Your task to perform on an android device: turn off notifications in google photos Image 0: 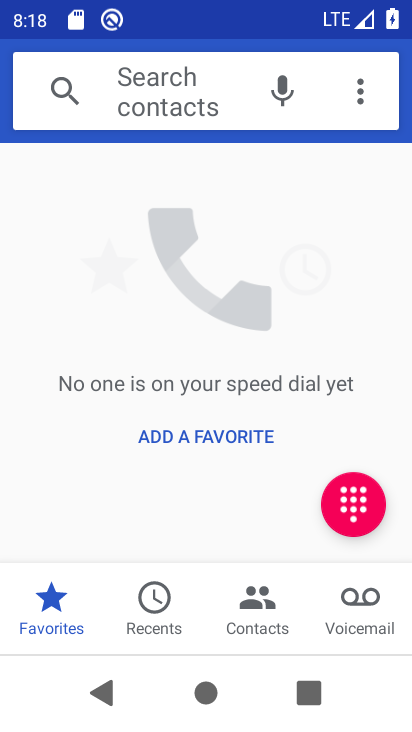
Step 0: press home button
Your task to perform on an android device: turn off notifications in google photos Image 1: 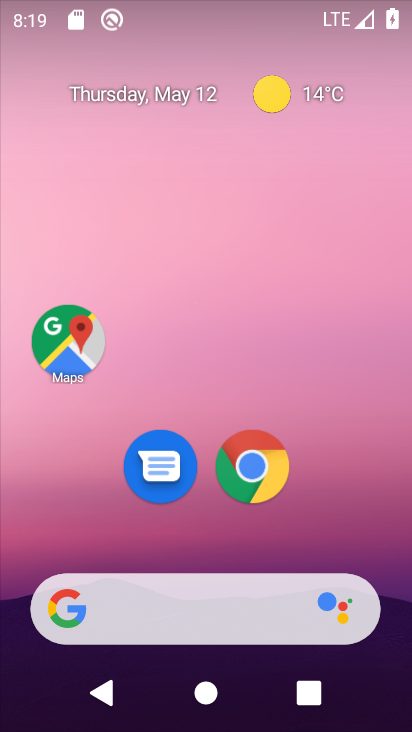
Step 1: drag from (207, 539) to (206, 94)
Your task to perform on an android device: turn off notifications in google photos Image 2: 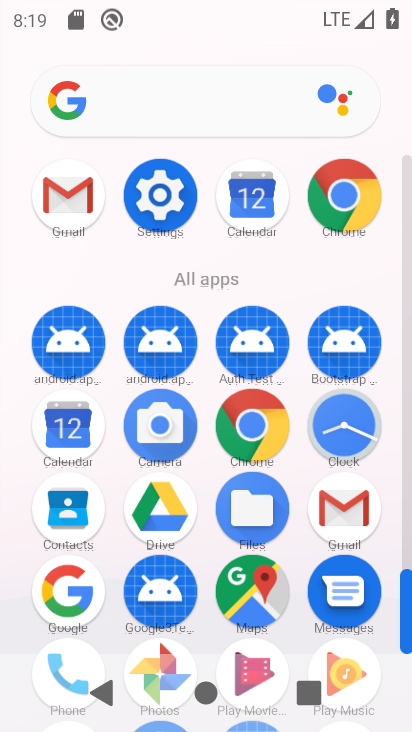
Step 2: drag from (203, 619) to (180, 219)
Your task to perform on an android device: turn off notifications in google photos Image 3: 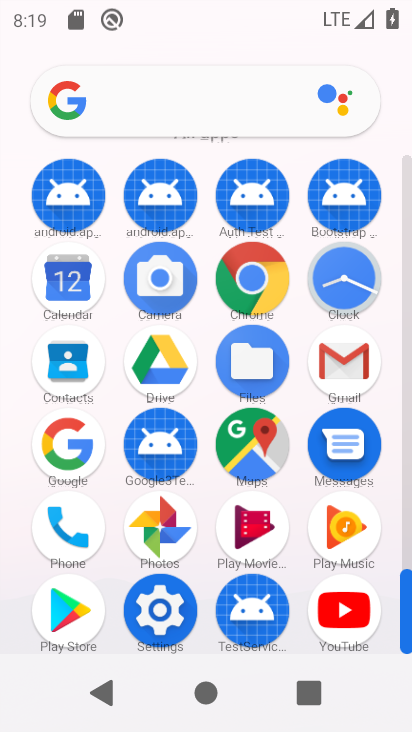
Step 3: click (158, 519)
Your task to perform on an android device: turn off notifications in google photos Image 4: 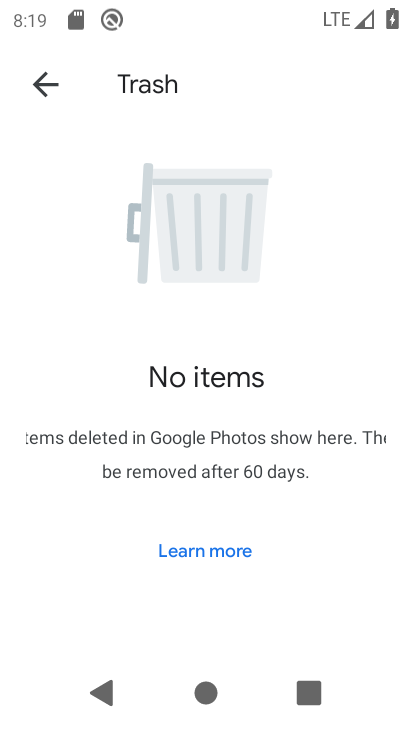
Step 4: click (46, 88)
Your task to perform on an android device: turn off notifications in google photos Image 5: 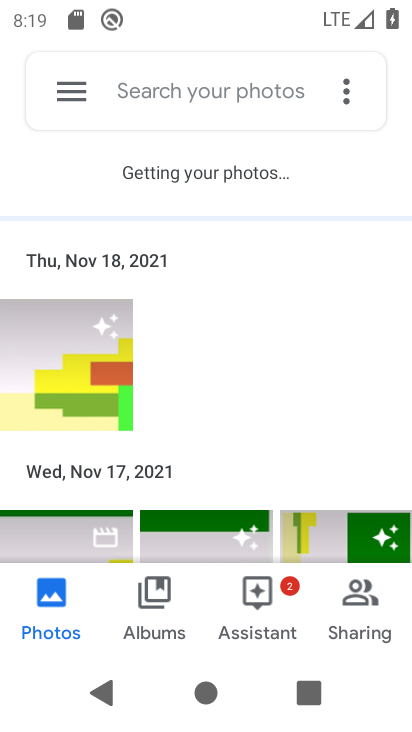
Step 5: click (67, 91)
Your task to perform on an android device: turn off notifications in google photos Image 6: 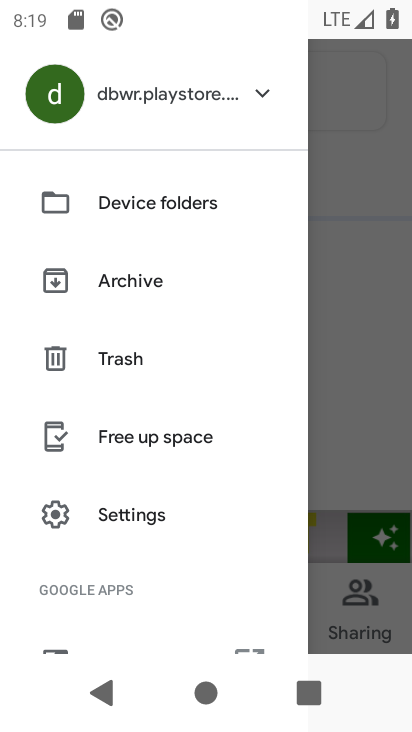
Step 6: click (179, 510)
Your task to perform on an android device: turn off notifications in google photos Image 7: 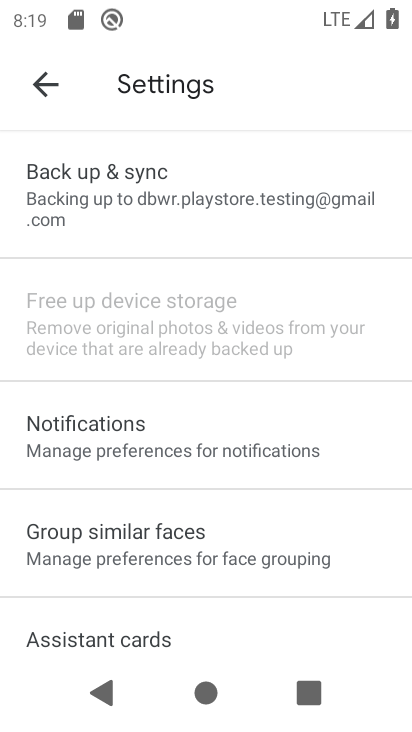
Step 7: click (148, 435)
Your task to perform on an android device: turn off notifications in google photos Image 8: 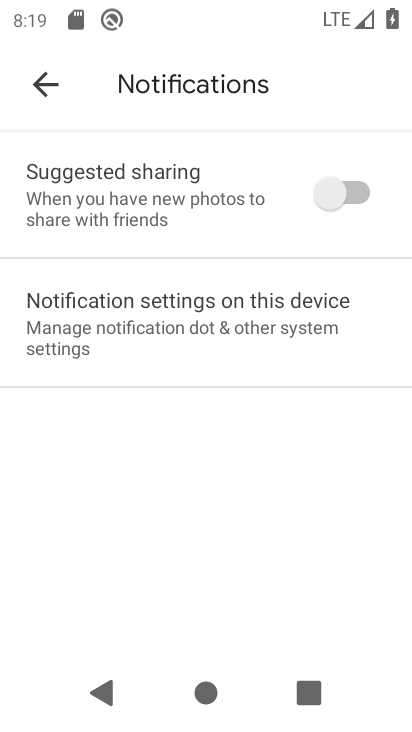
Step 8: click (140, 351)
Your task to perform on an android device: turn off notifications in google photos Image 9: 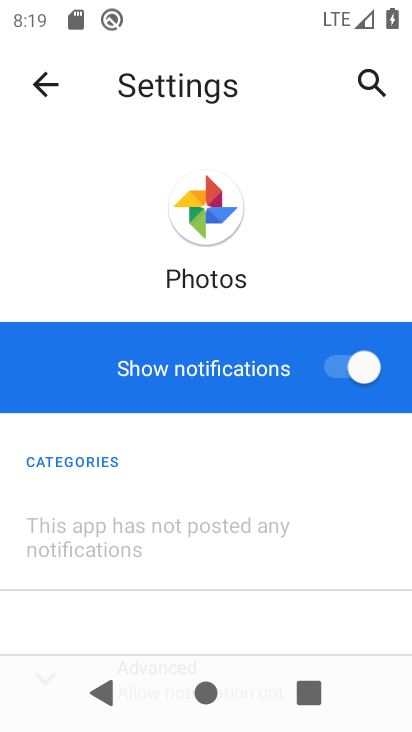
Step 9: click (344, 357)
Your task to perform on an android device: turn off notifications in google photos Image 10: 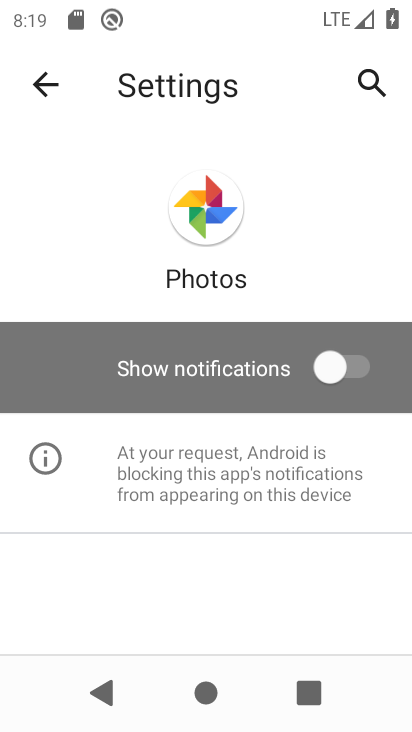
Step 10: task complete